Your task to perform on an android device: toggle priority inbox in the gmail app Image 0: 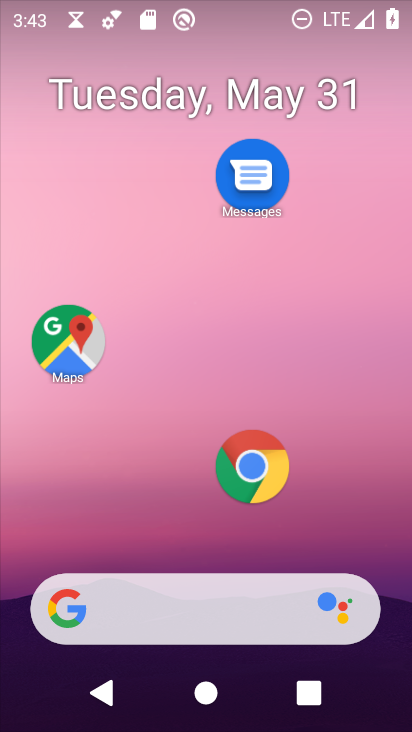
Step 0: drag from (148, 515) to (250, 106)
Your task to perform on an android device: toggle priority inbox in the gmail app Image 1: 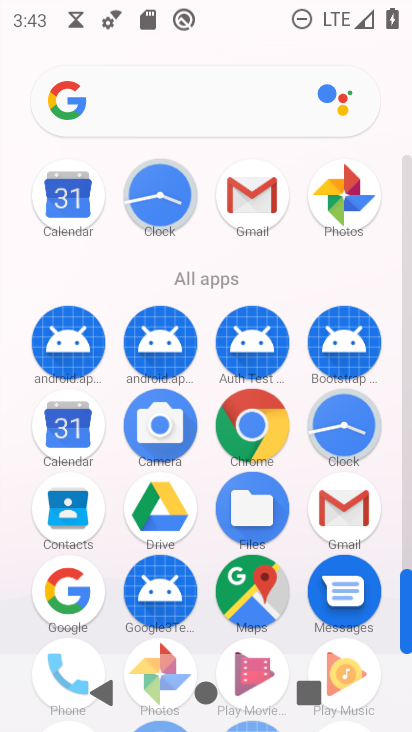
Step 1: click (242, 196)
Your task to perform on an android device: toggle priority inbox in the gmail app Image 2: 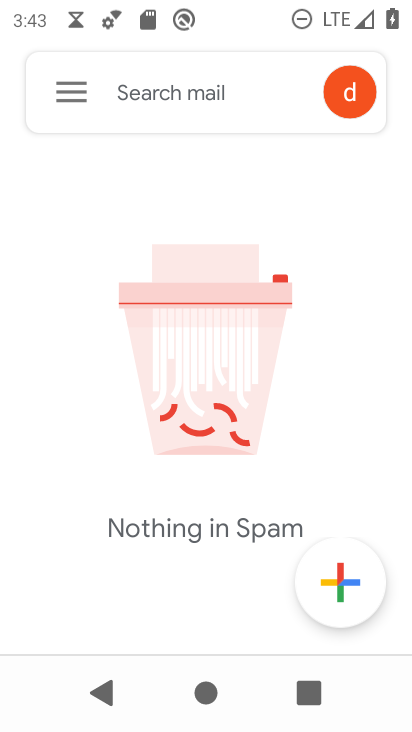
Step 2: click (68, 96)
Your task to perform on an android device: toggle priority inbox in the gmail app Image 3: 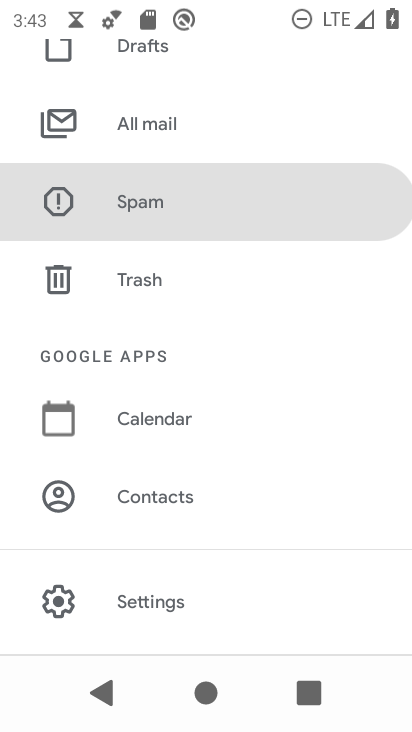
Step 3: click (164, 607)
Your task to perform on an android device: toggle priority inbox in the gmail app Image 4: 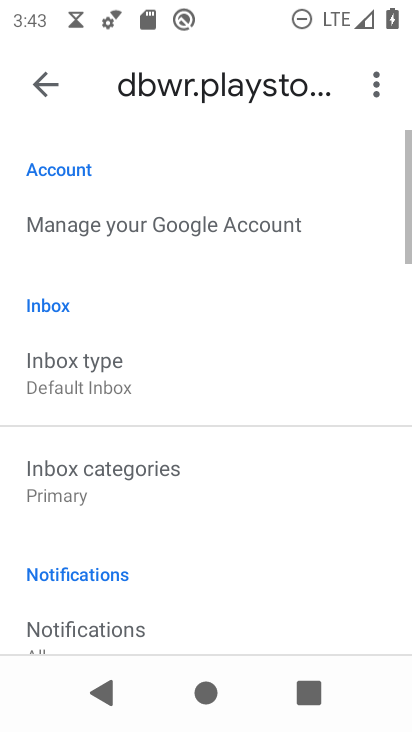
Step 4: click (124, 355)
Your task to perform on an android device: toggle priority inbox in the gmail app Image 5: 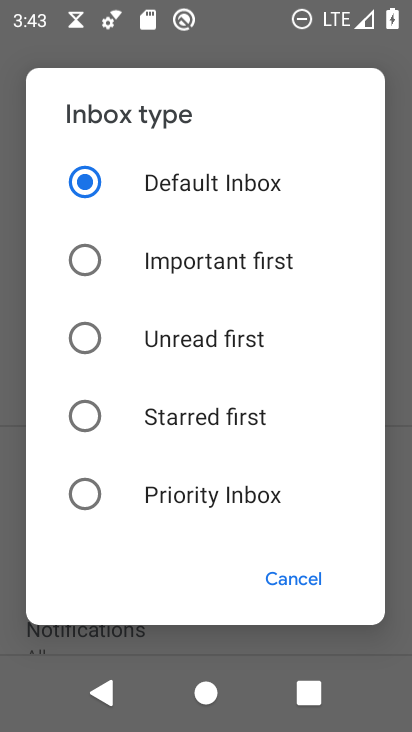
Step 5: click (92, 484)
Your task to perform on an android device: toggle priority inbox in the gmail app Image 6: 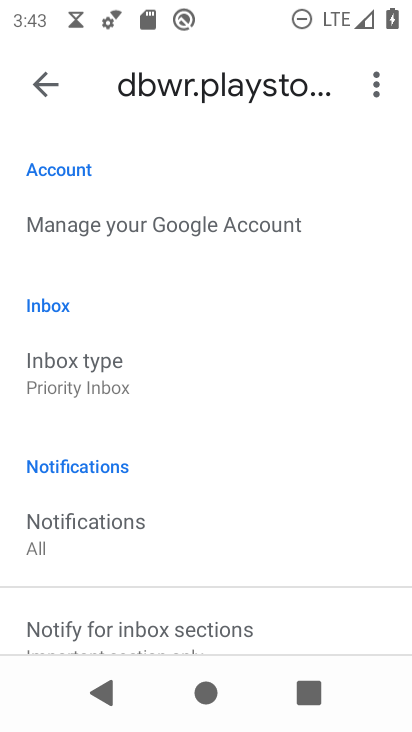
Step 6: task complete